Your task to perform on an android device: When is my next appointment? Image 0: 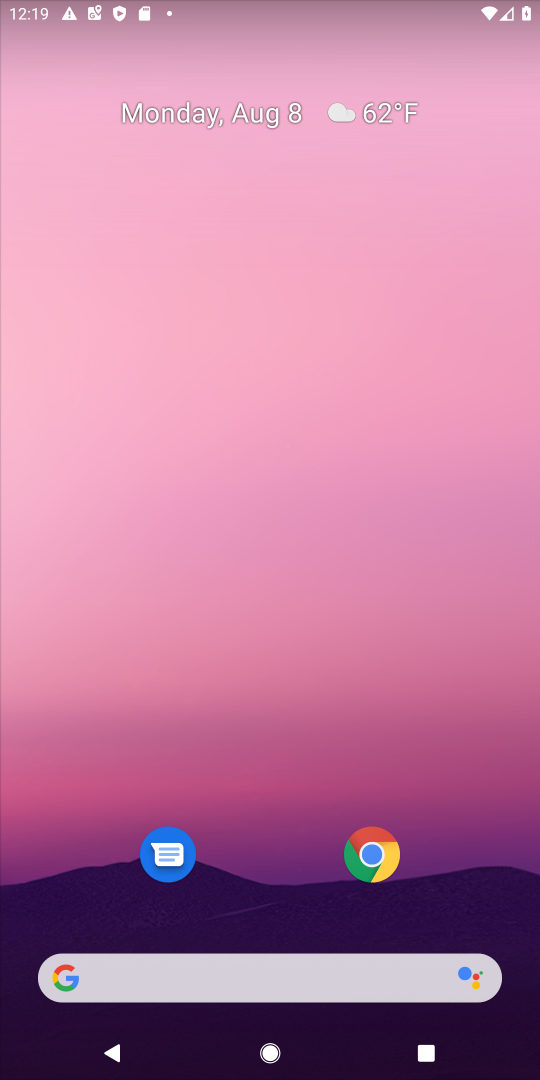
Step 0: drag from (265, 913) to (232, 147)
Your task to perform on an android device: When is my next appointment? Image 1: 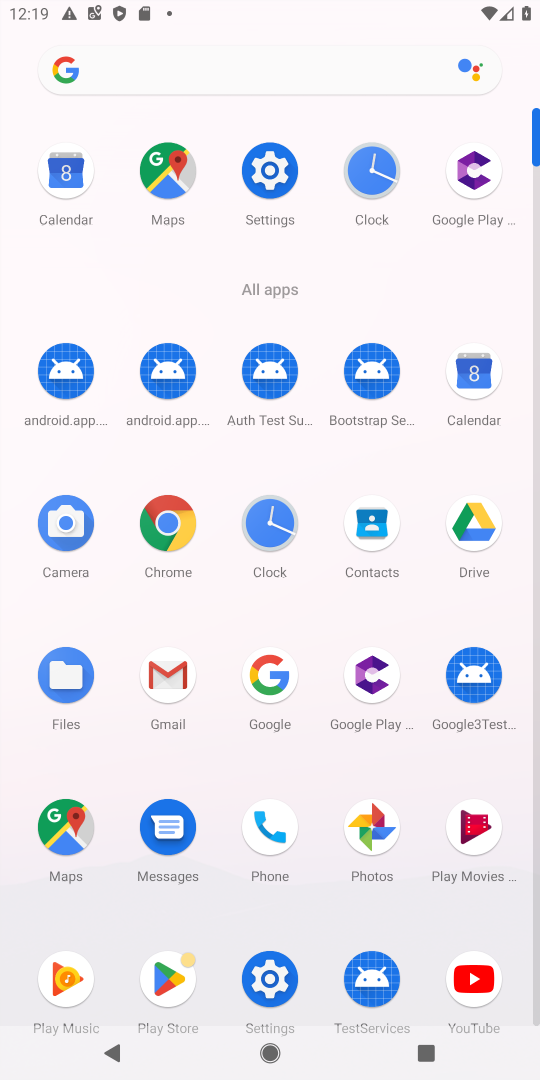
Step 1: click (464, 397)
Your task to perform on an android device: When is my next appointment? Image 2: 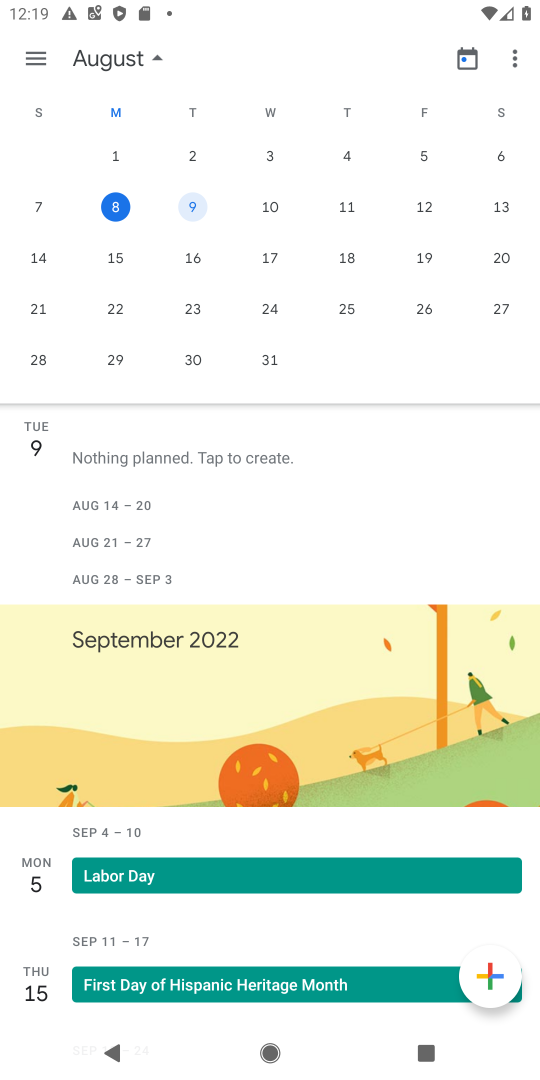
Step 2: click (27, 60)
Your task to perform on an android device: When is my next appointment? Image 3: 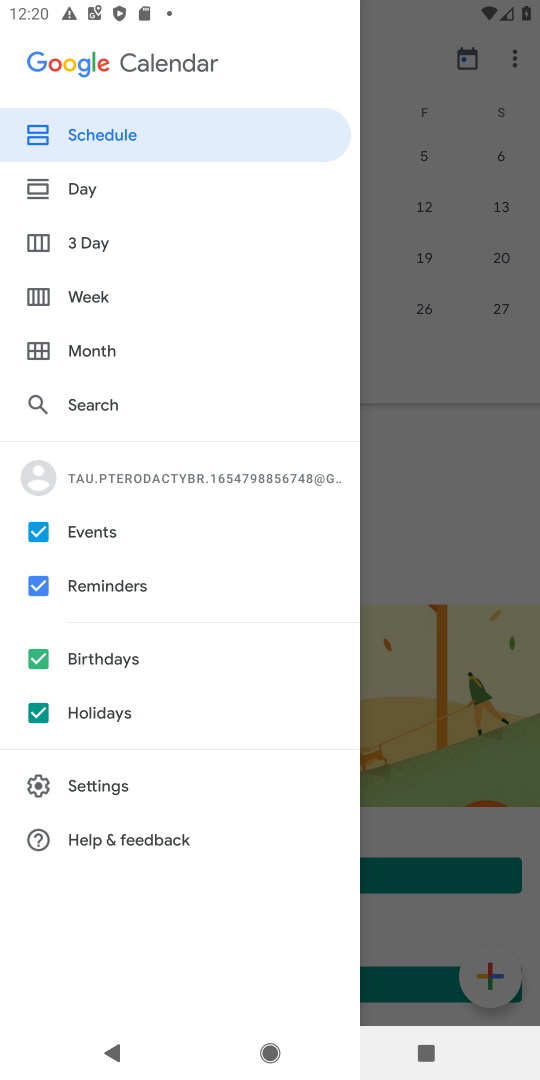
Step 3: click (139, 135)
Your task to perform on an android device: When is my next appointment? Image 4: 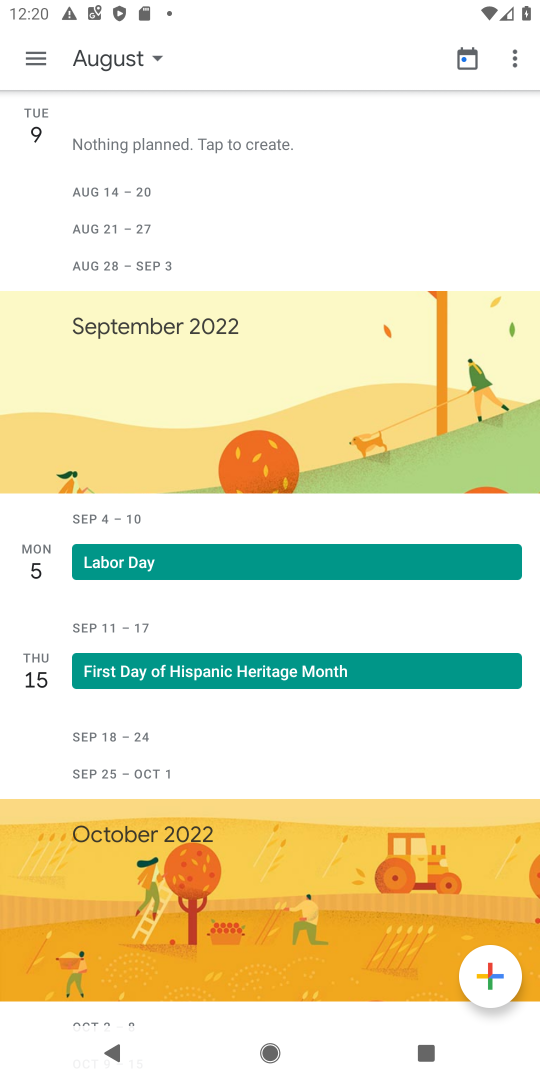
Step 4: task complete